Your task to perform on an android device: turn off notifications in google photos Image 0: 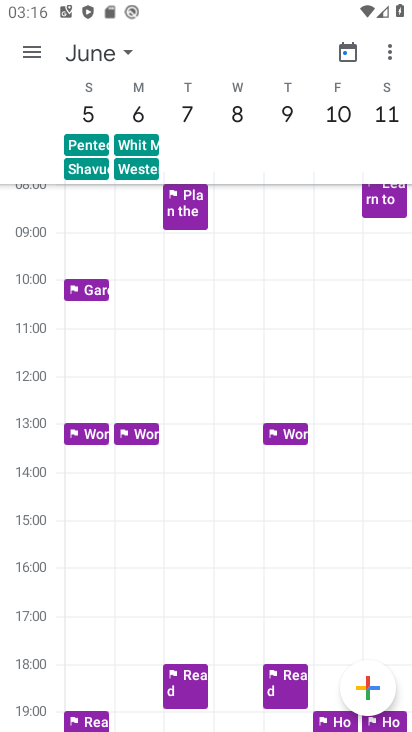
Step 0: press home button
Your task to perform on an android device: turn off notifications in google photos Image 1: 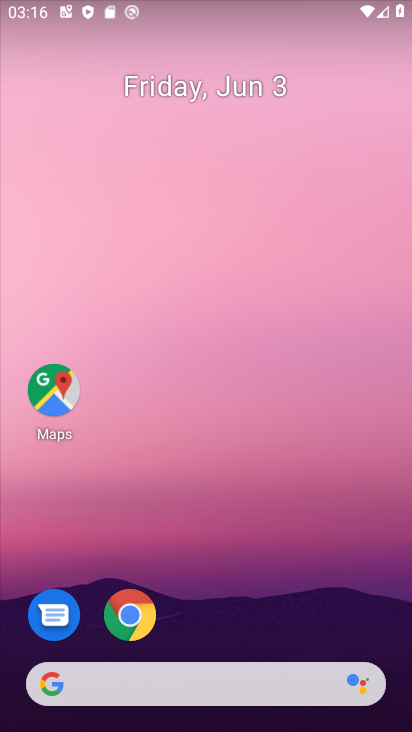
Step 1: drag from (272, 618) to (205, 179)
Your task to perform on an android device: turn off notifications in google photos Image 2: 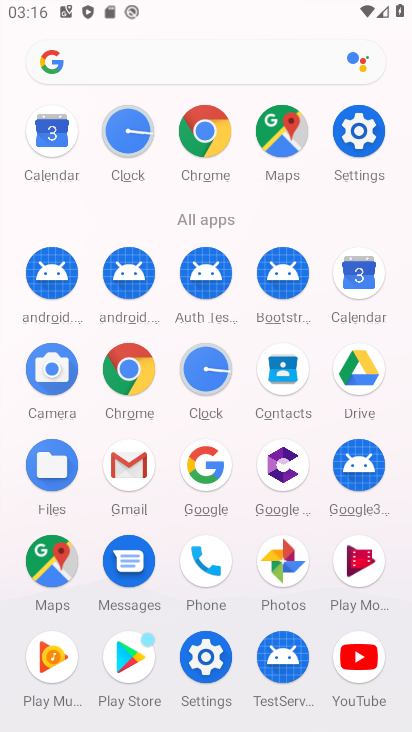
Step 2: click (294, 566)
Your task to perform on an android device: turn off notifications in google photos Image 3: 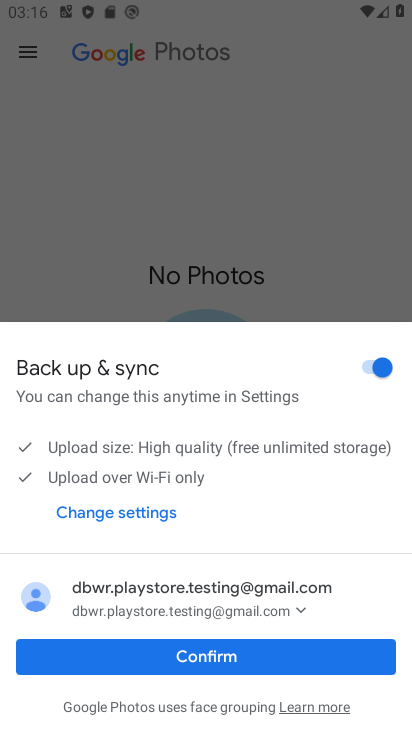
Step 3: click (272, 656)
Your task to perform on an android device: turn off notifications in google photos Image 4: 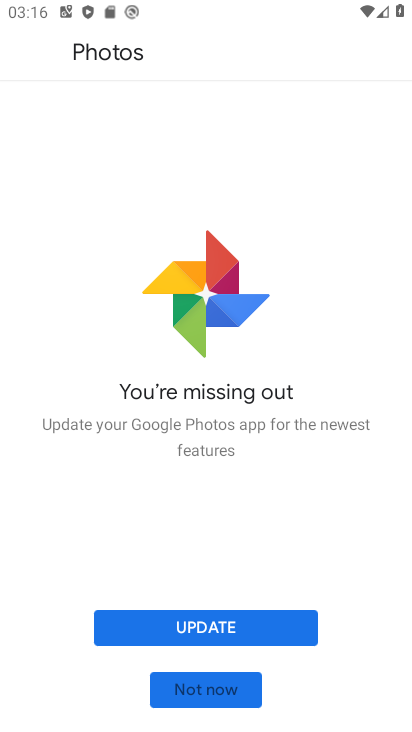
Step 4: click (270, 634)
Your task to perform on an android device: turn off notifications in google photos Image 5: 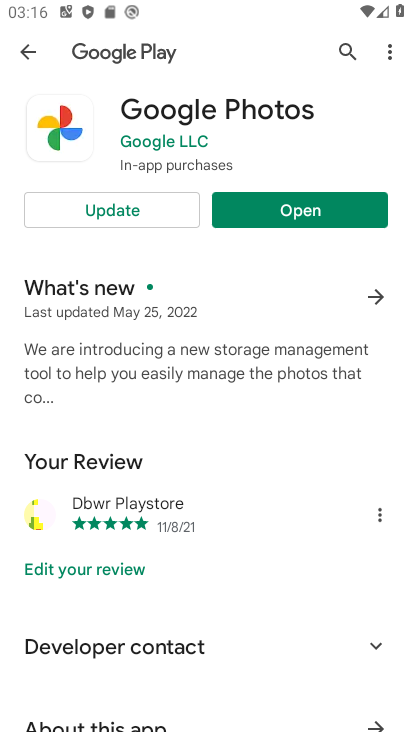
Step 5: click (127, 199)
Your task to perform on an android device: turn off notifications in google photos Image 6: 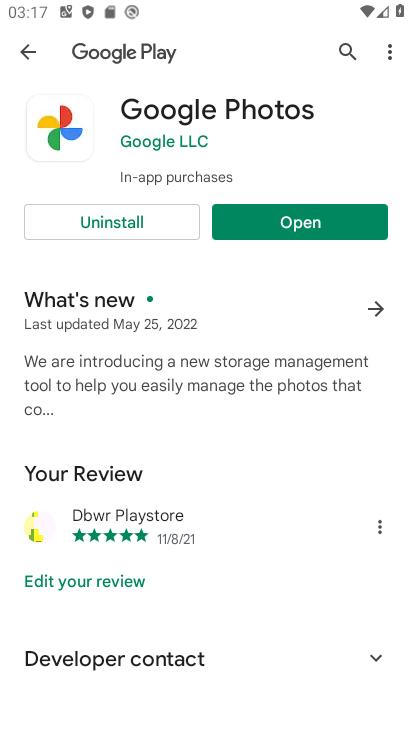
Step 6: click (281, 230)
Your task to perform on an android device: turn off notifications in google photos Image 7: 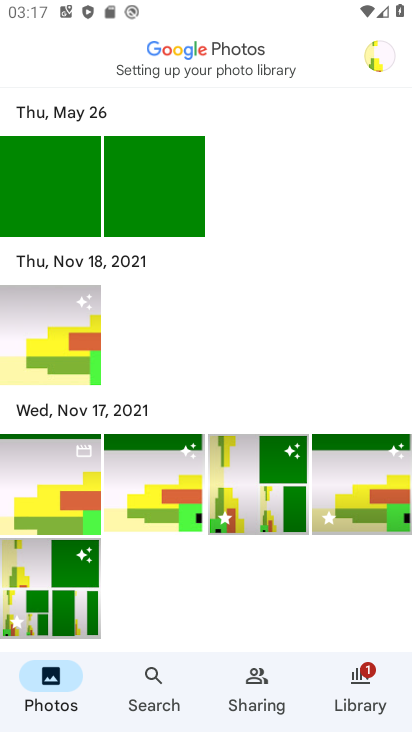
Step 7: click (389, 54)
Your task to perform on an android device: turn off notifications in google photos Image 8: 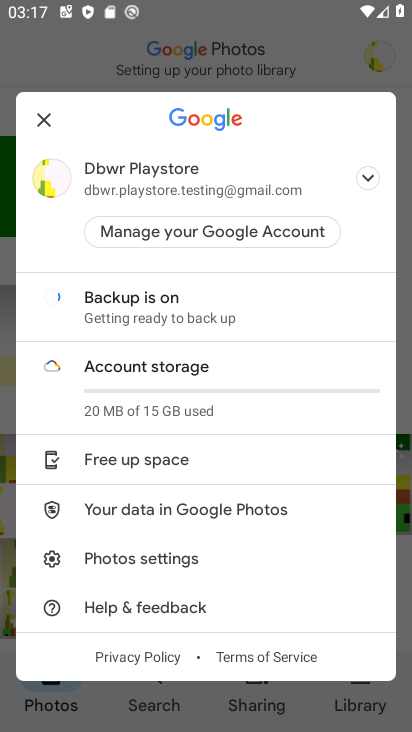
Step 8: click (183, 558)
Your task to perform on an android device: turn off notifications in google photos Image 9: 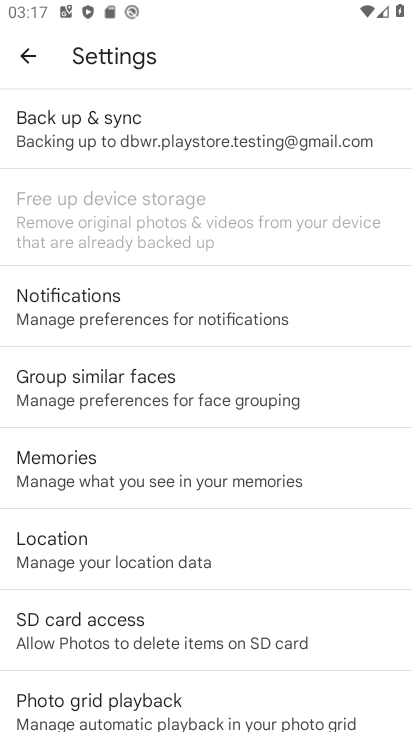
Step 9: click (172, 319)
Your task to perform on an android device: turn off notifications in google photos Image 10: 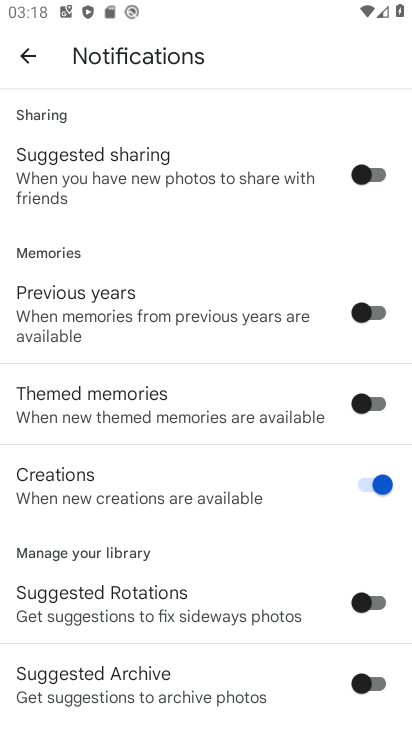
Step 10: drag from (199, 579) to (171, 259)
Your task to perform on an android device: turn off notifications in google photos Image 11: 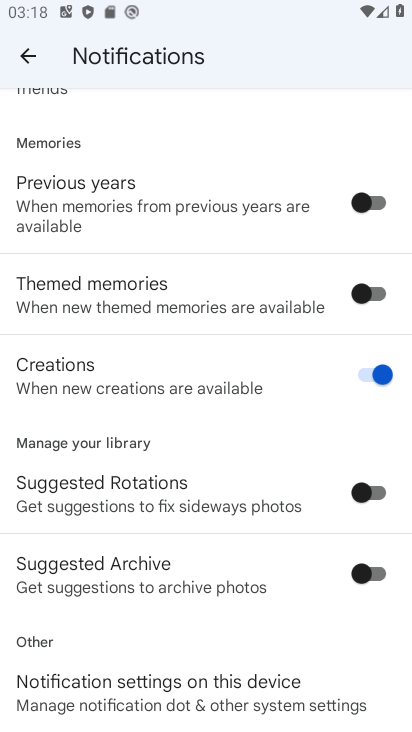
Step 11: click (236, 698)
Your task to perform on an android device: turn off notifications in google photos Image 12: 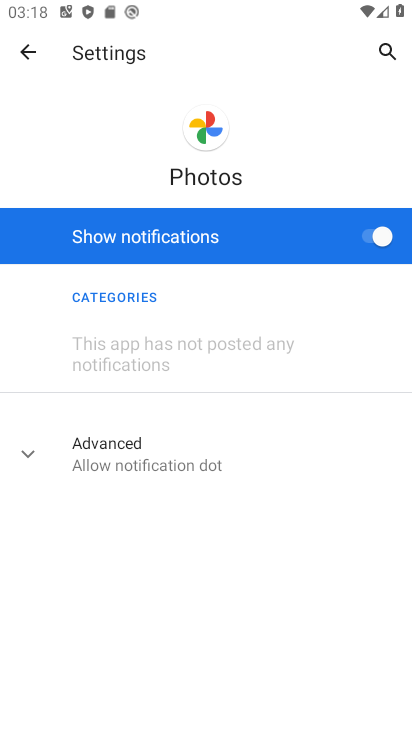
Step 12: click (380, 236)
Your task to perform on an android device: turn off notifications in google photos Image 13: 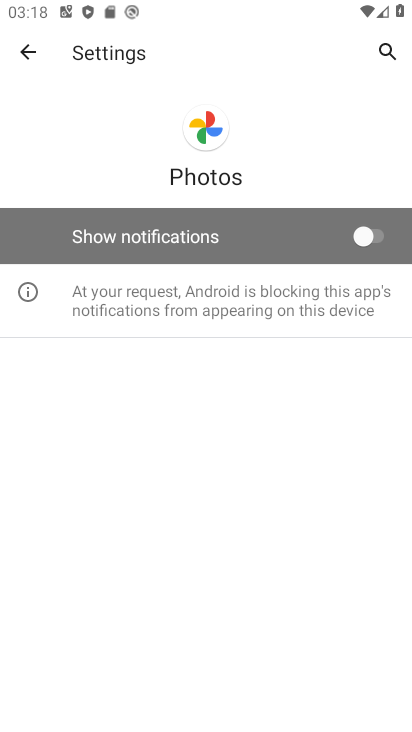
Step 13: task complete